Your task to perform on an android device: stop showing notifications on the lock screen Image 0: 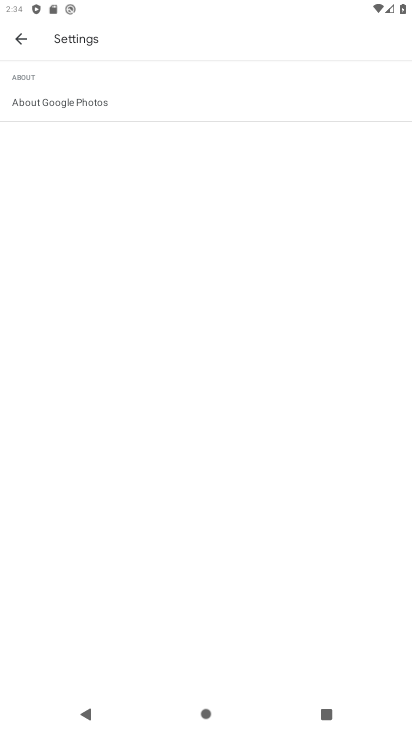
Step 0: press home button
Your task to perform on an android device: stop showing notifications on the lock screen Image 1: 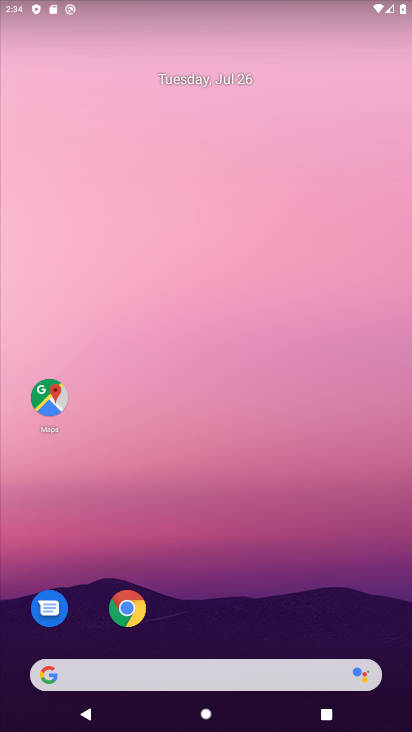
Step 1: drag from (260, 587) to (200, 33)
Your task to perform on an android device: stop showing notifications on the lock screen Image 2: 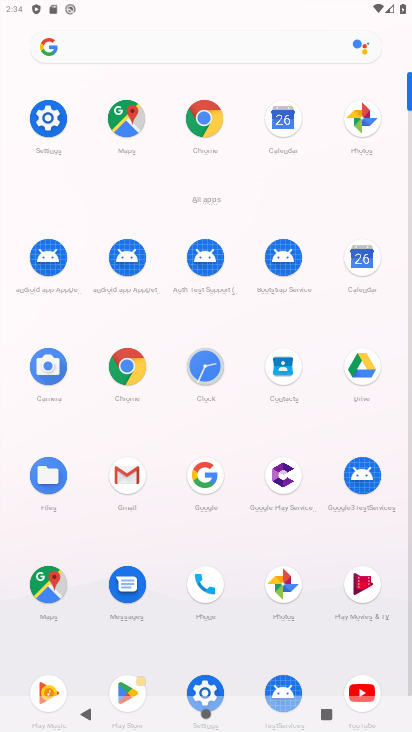
Step 2: click (41, 118)
Your task to perform on an android device: stop showing notifications on the lock screen Image 3: 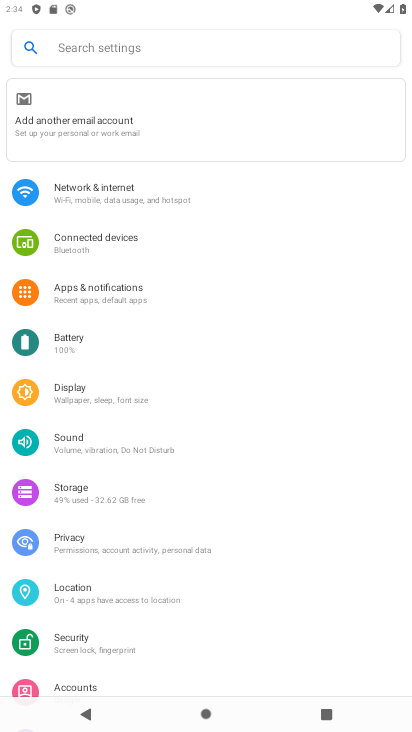
Step 3: click (107, 304)
Your task to perform on an android device: stop showing notifications on the lock screen Image 4: 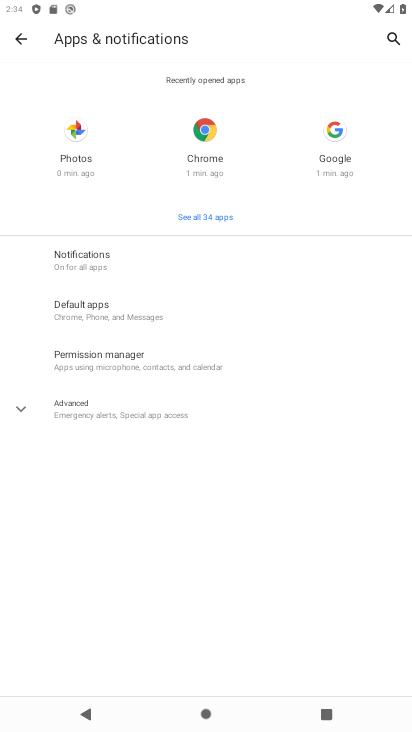
Step 4: click (142, 261)
Your task to perform on an android device: stop showing notifications on the lock screen Image 5: 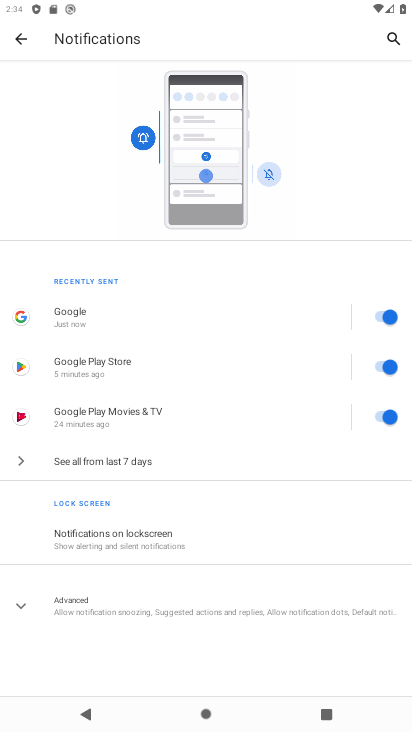
Step 5: click (121, 535)
Your task to perform on an android device: stop showing notifications on the lock screen Image 6: 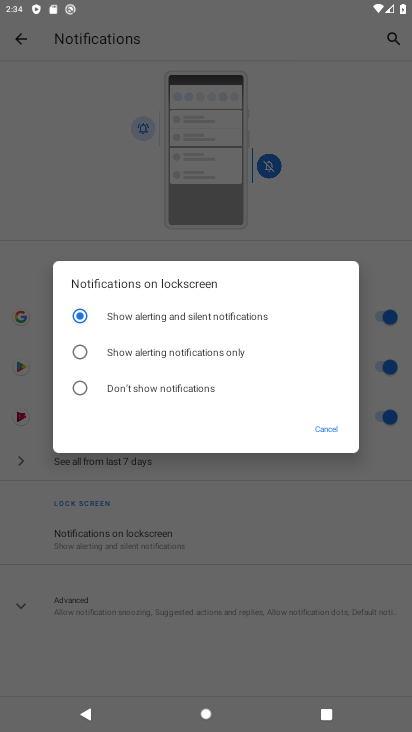
Step 6: click (173, 389)
Your task to perform on an android device: stop showing notifications on the lock screen Image 7: 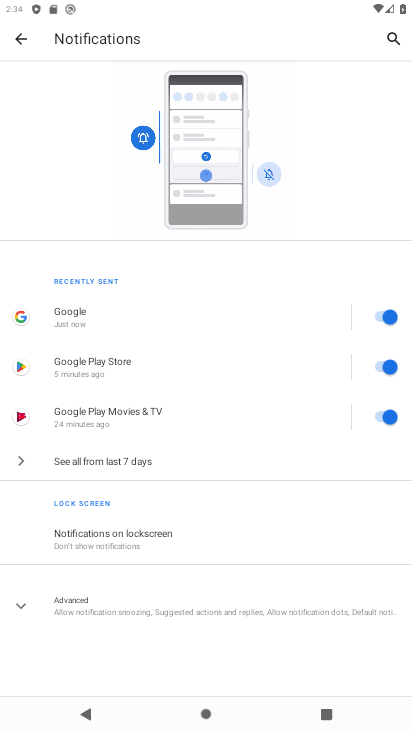
Step 7: task complete